Your task to perform on an android device: Go to Android settings Image 0: 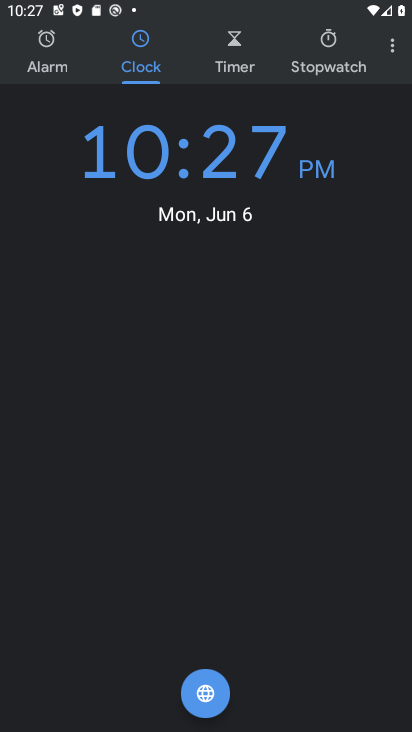
Step 0: press home button
Your task to perform on an android device: Go to Android settings Image 1: 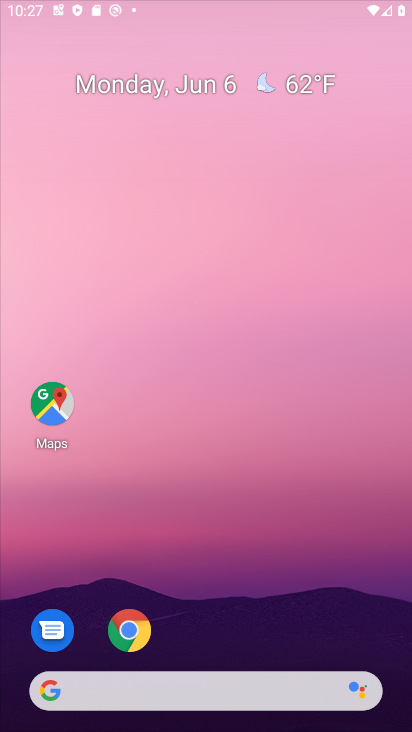
Step 1: drag from (369, 643) to (319, 154)
Your task to perform on an android device: Go to Android settings Image 2: 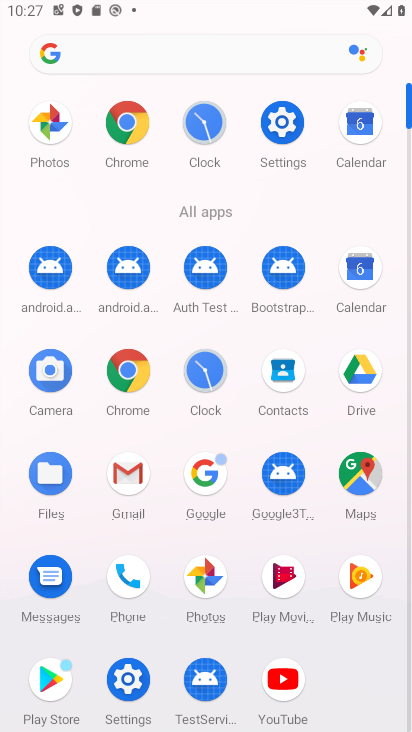
Step 2: click (121, 686)
Your task to perform on an android device: Go to Android settings Image 3: 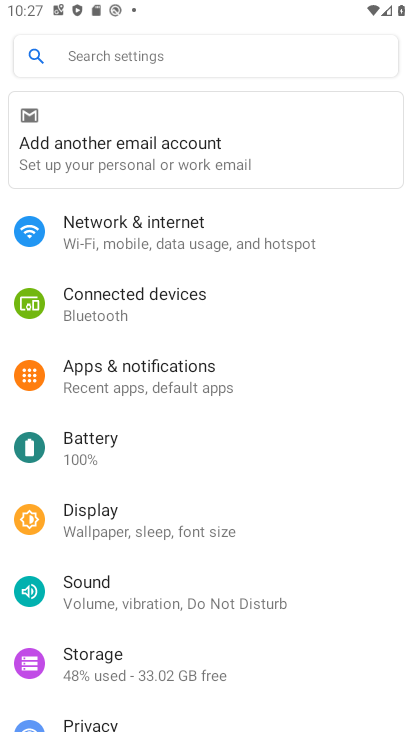
Step 3: drag from (247, 703) to (343, 267)
Your task to perform on an android device: Go to Android settings Image 4: 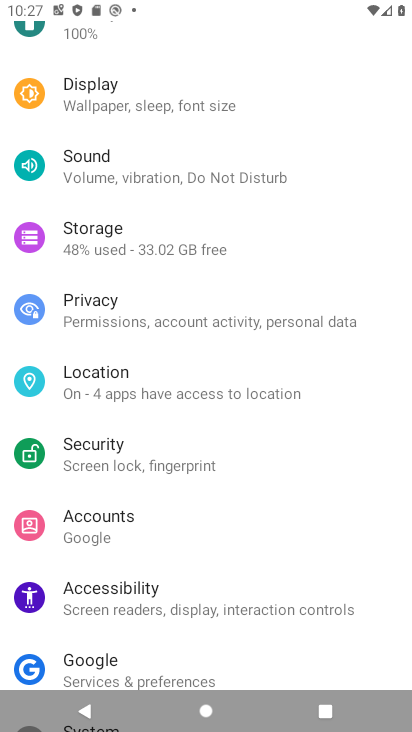
Step 4: drag from (263, 591) to (331, 267)
Your task to perform on an android device: Go to Android settings Image 5: 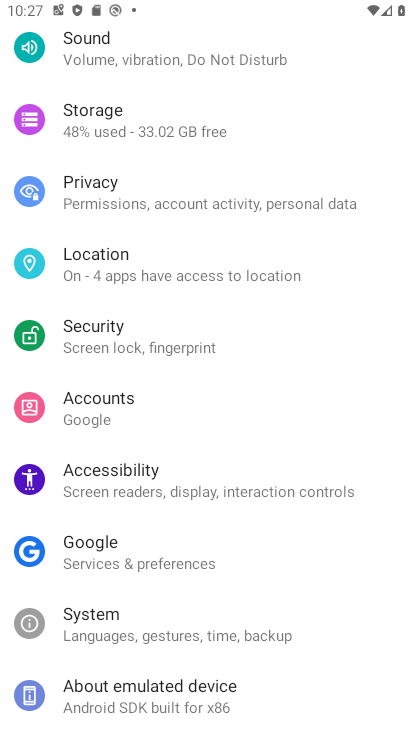
Step 5: click (192, 688)
Your task to perform on an android device: Go to Android settings Image 6: 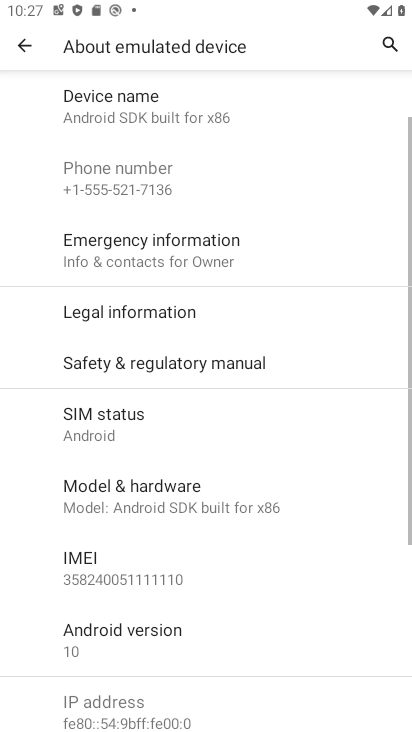
Step 6: drag from (195, 657) to (231, 571)
Your task to perform on an android device: Go to Android settings Image 7: 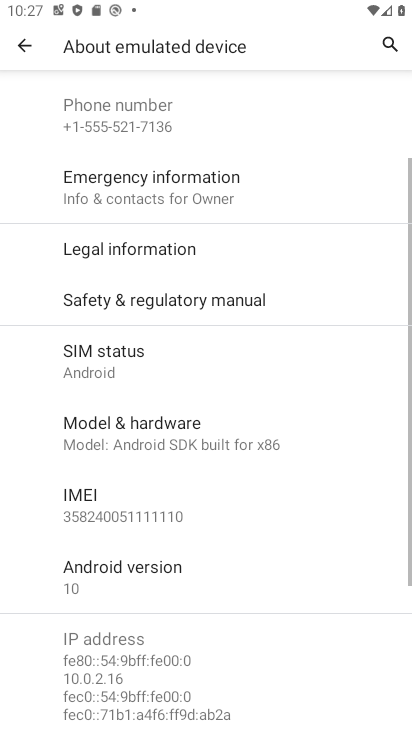
Step 7: click (193, 575)
Your task to perform on an android device: Go to Android settings Image 8: 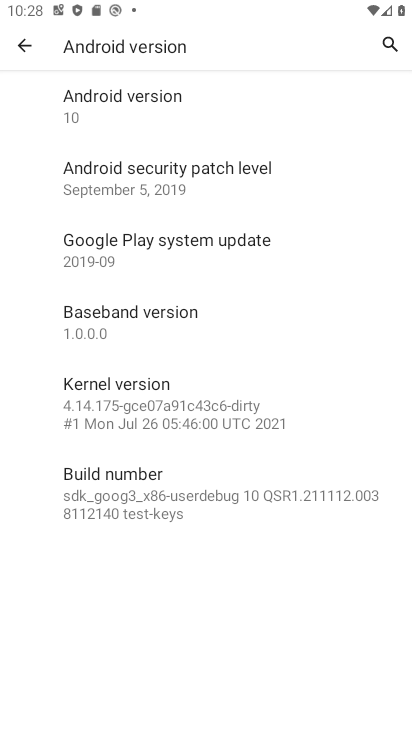
Step 8: task complete